Your task to perform on an android device: Go to Reddit.com Image 0: 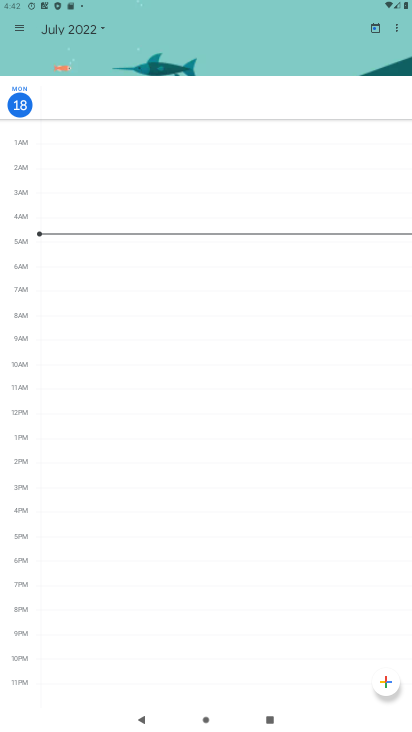
Step 0: press home button
Your task to perform on an android device: Go to Reddit.com Image 1: 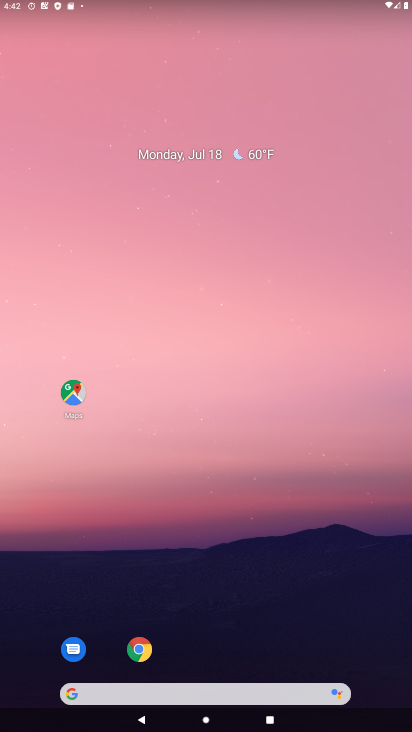
Step 1: click (200, 660)
Your task to perform on an android device: Go to Reddit.com Image 2: 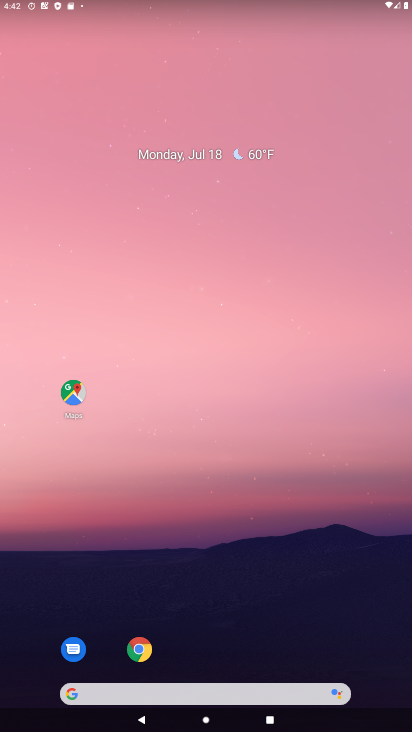
Step 2: click (141, 662)
Your task to perform on an android device: Go to Reddit.com Image 3: 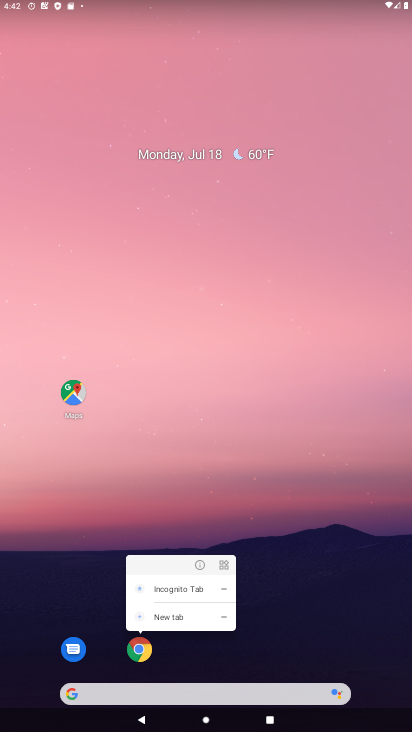
Step 3: click (141, 651)
Your task to perform on an android device: Go to Reddit.com Image 4: 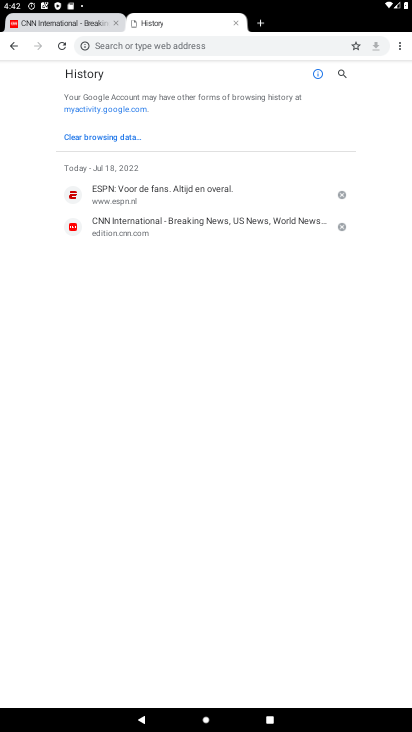
Step 4: click (169, 44)
Your task to perform on an android device: Go to Reddit.com Image 5: 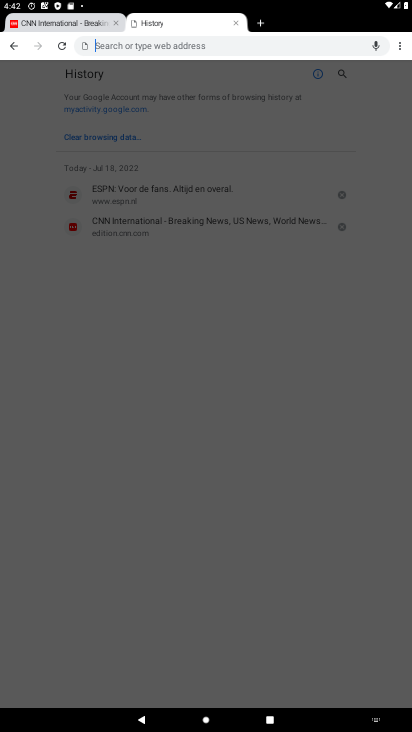
Step 5: type "Reddit.com"
Your task to perform on an android device: Go to Reddit.com Image 6: 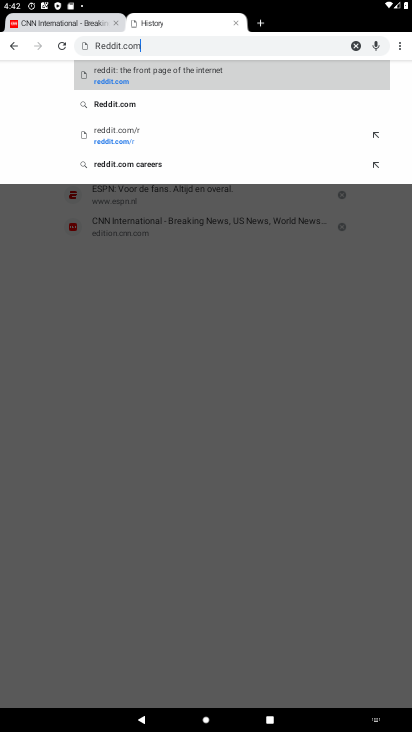
Step 6: click (146, 73)
Your task to perform on an android device: Go to Reddit.com Image 7: 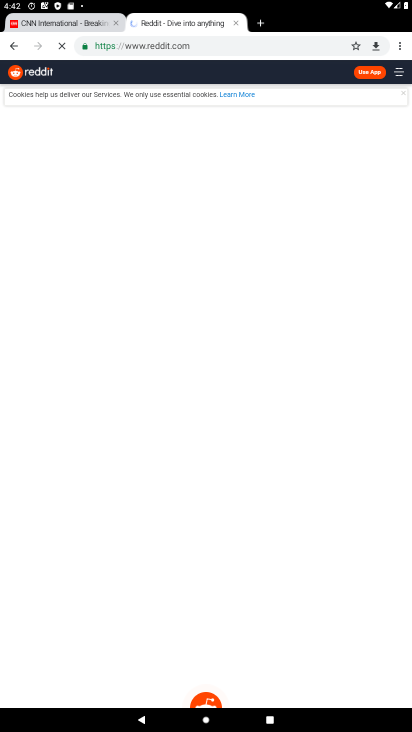
Step 7: task complete